Your task to perform on an android device: Is it going to rain this weekend? Image 0: 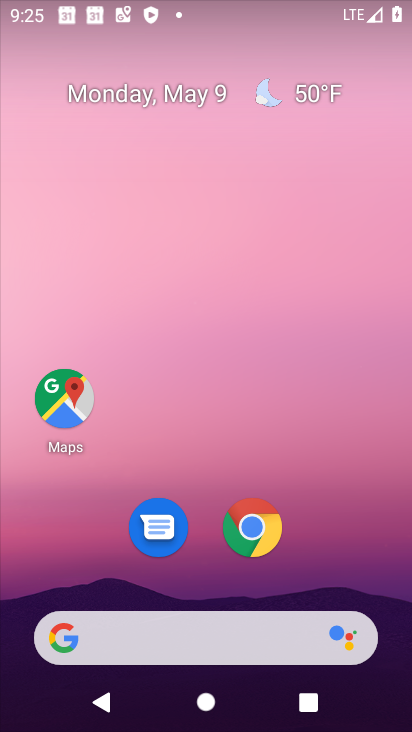
Step 0: click (275, 98)
Your task to perform on an android device: Is it going to rain this weekend? Image 1: 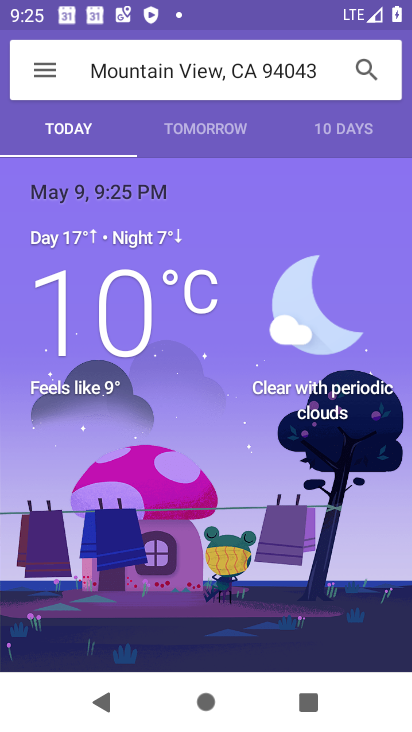
Step 1: click (331, 127)
Your task to perform on an android device: Is it going to rain this weekend? Image 2: 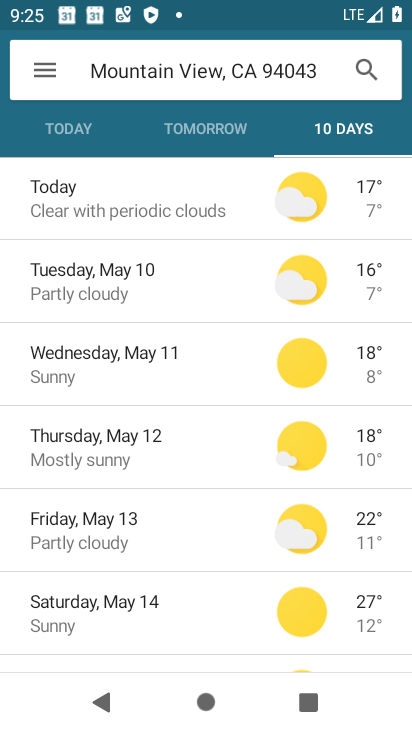
Step 2: task complete